Your task to perform on an android device: Show me the alarms in the clock app Image 0: 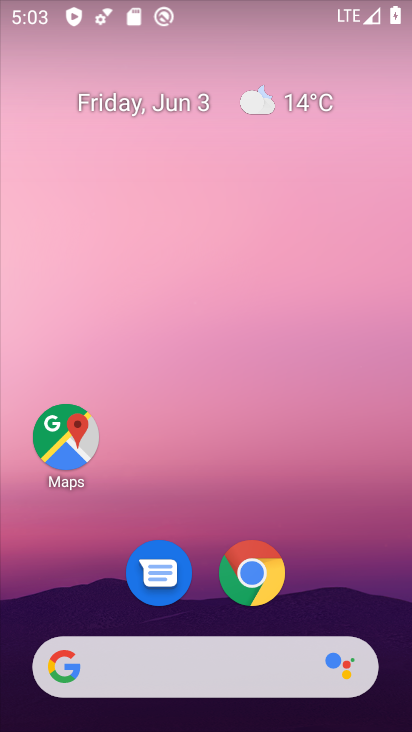
Step 0: drag from (368, 541) to (365, 86)
Your task to perform on an android device: Show me the alarms in the clock app Image 1: 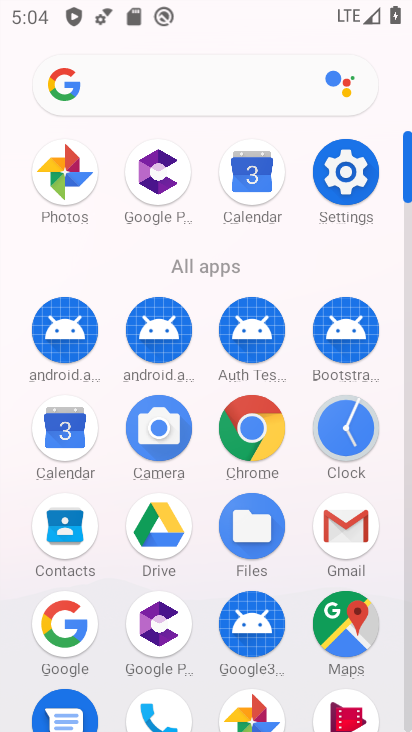
Step 1: click (361, 419)
Your task to perform on an android device: Show me the alarms in the clock app Image 2: 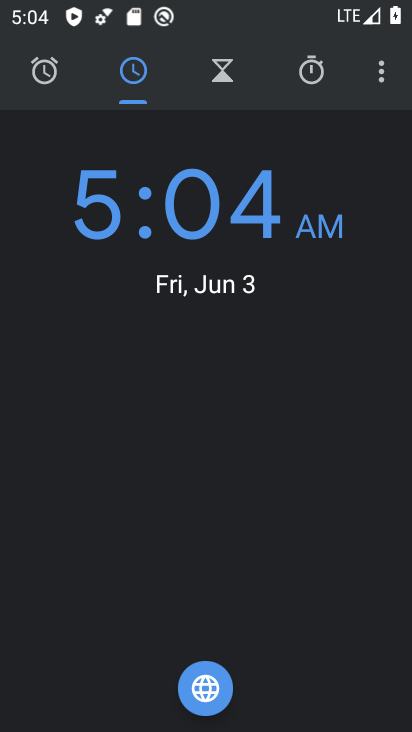
Step 2: click (48, 88)
Your task to perform on an android device: Show me the alarms in the clock app Image 3: 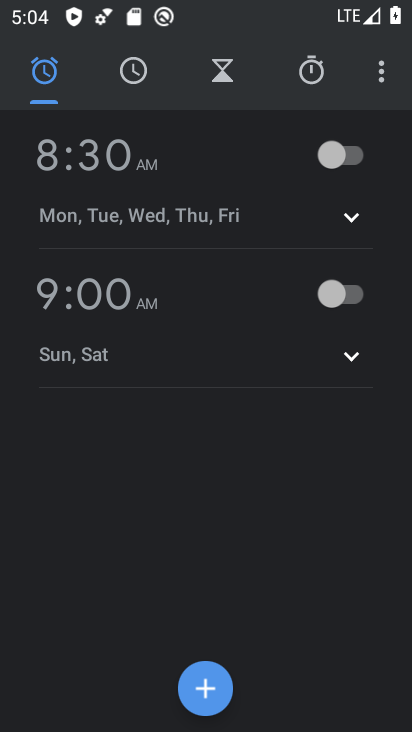
Step 3: task complete